Your task to perform on an android device: Open Amazon Image 0: 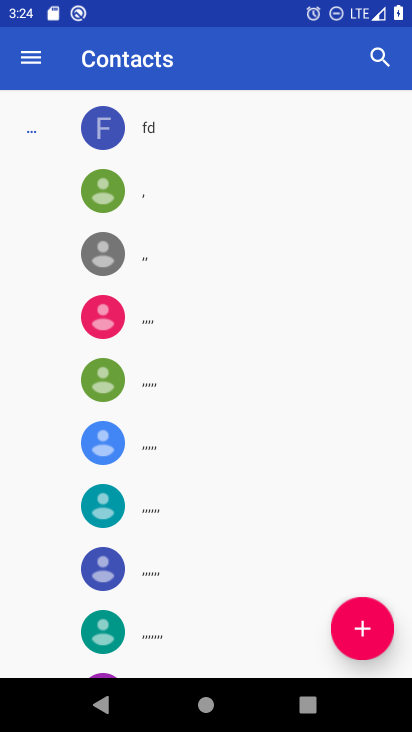
Step 0: press home button
Your task to perform on an android device: Open Amazon Image 1: 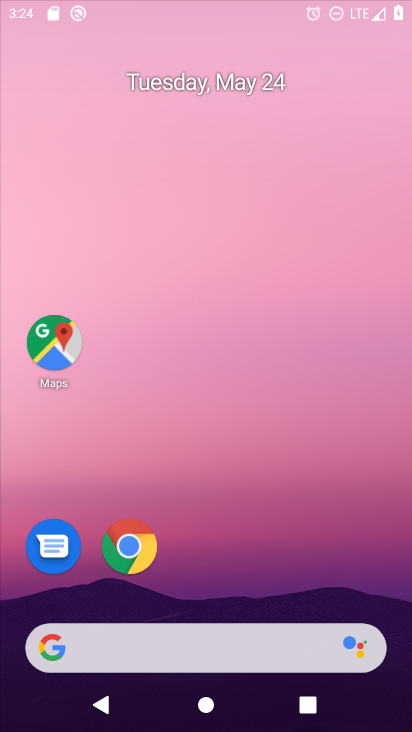
Step 1: drag from (244, 573) to (261, 138)
Your task to perform on an android device: Open Amazon Image 2: 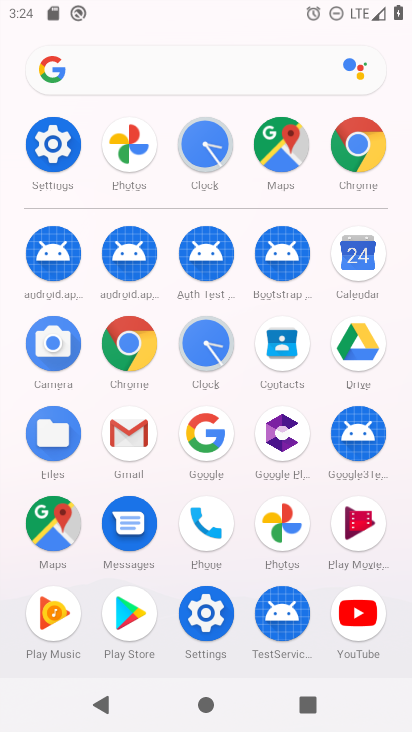
Step 2: click (132, 355)
Your task to perform on an android device: Open Amazon Image 3: 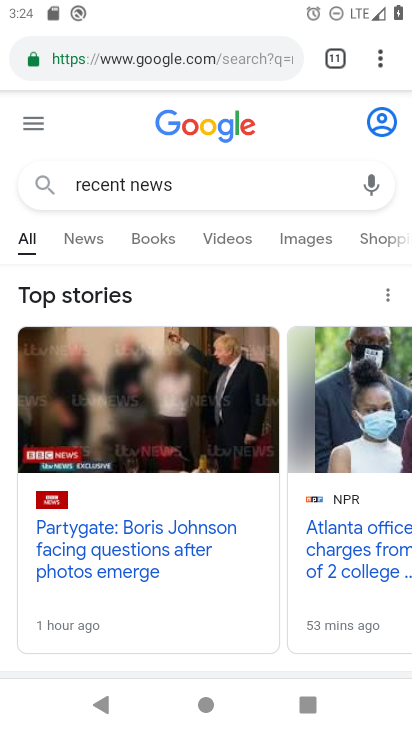
Step 3: drag from (386, 57) to (147, 113)
Your task to perform on an android device: Open Amazon Image 4: 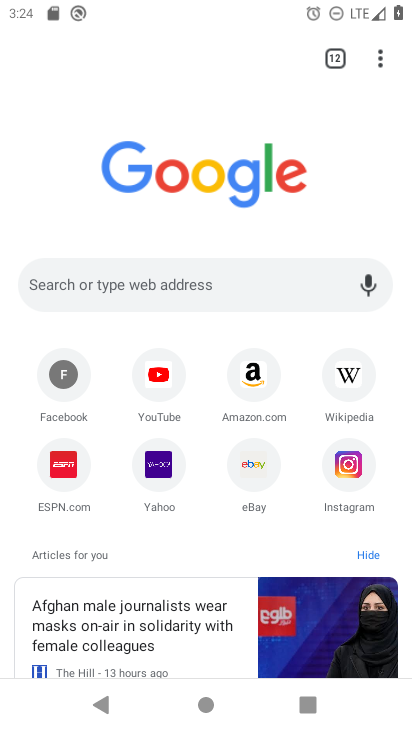
Step 4: click (251, 370)
Your task to perform on an android device: Open Amazon Image 5: 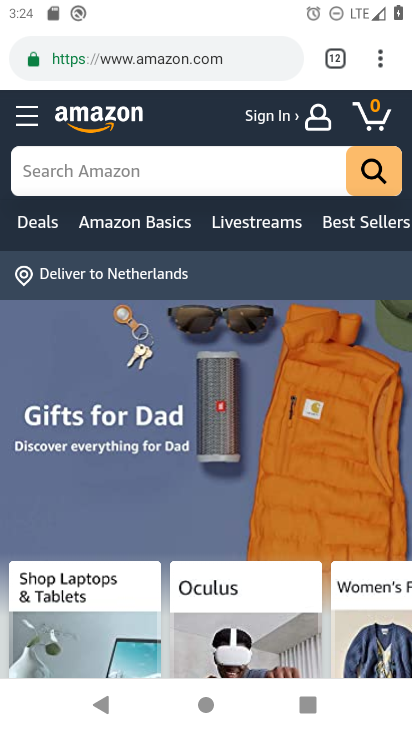
Step 5: task complete